Your task to perform on an android device: Open Maps and search for coffee Image 0: 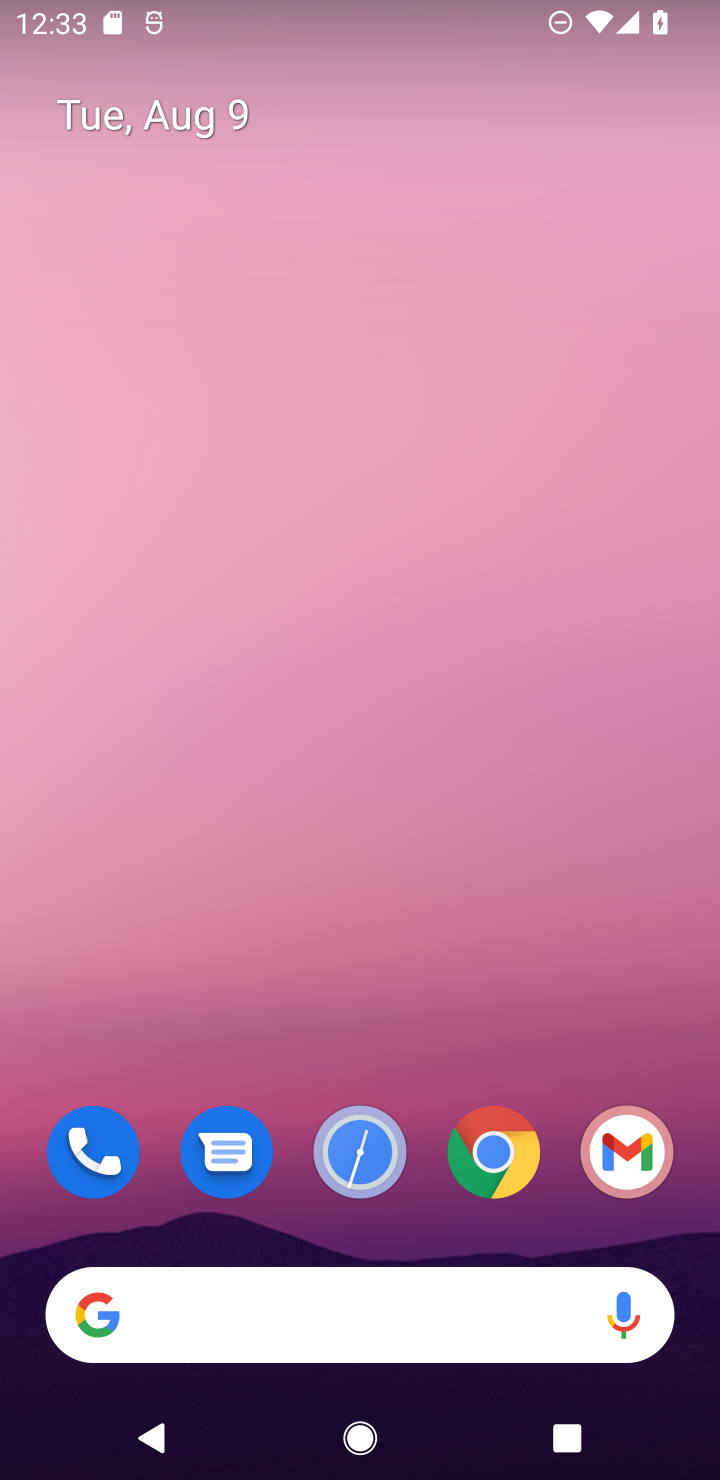
Step 0: drag from (451, 1085) to (432, 303)
Your task to perform on an android device: Open Maps and search for coffee Image 1: 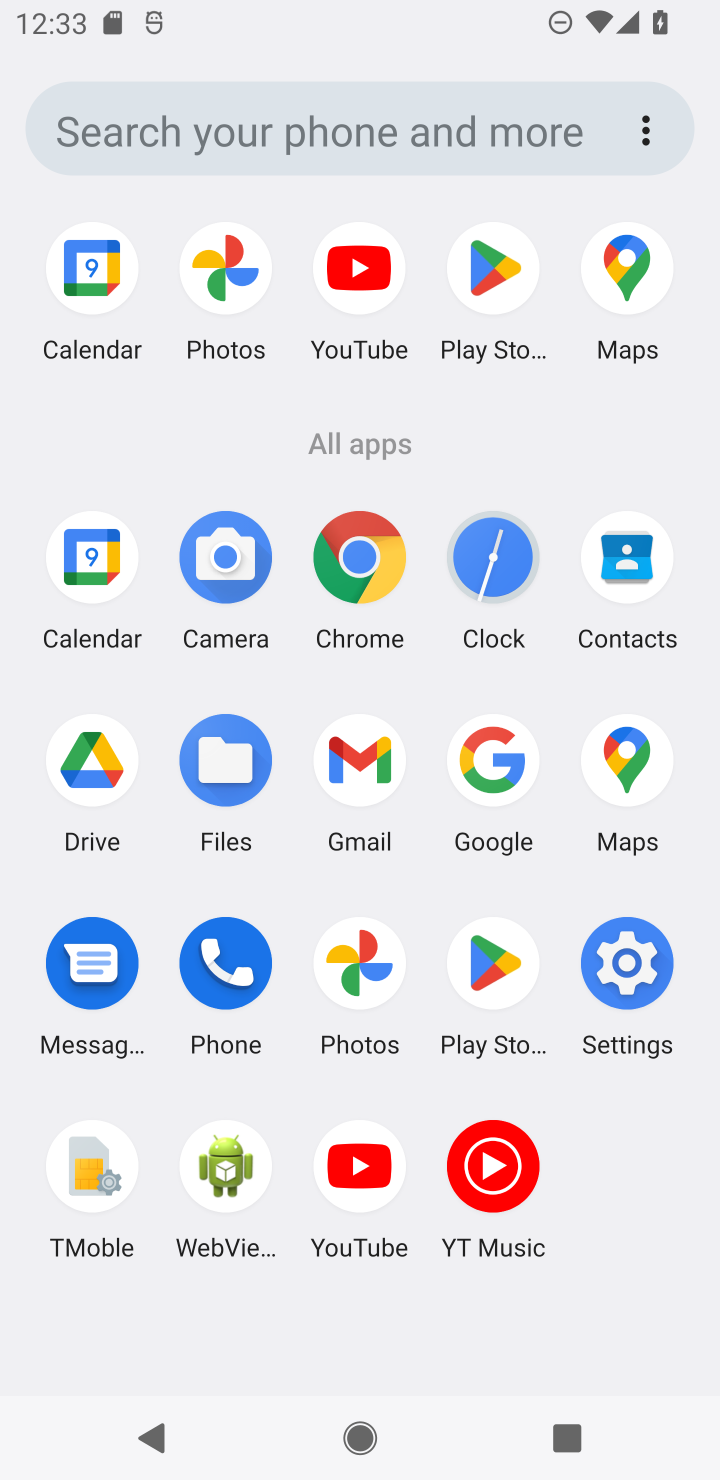
Step 1: click (629, 764)
Your task to perform on an android device: Open Maps and search for coffee Image 2: 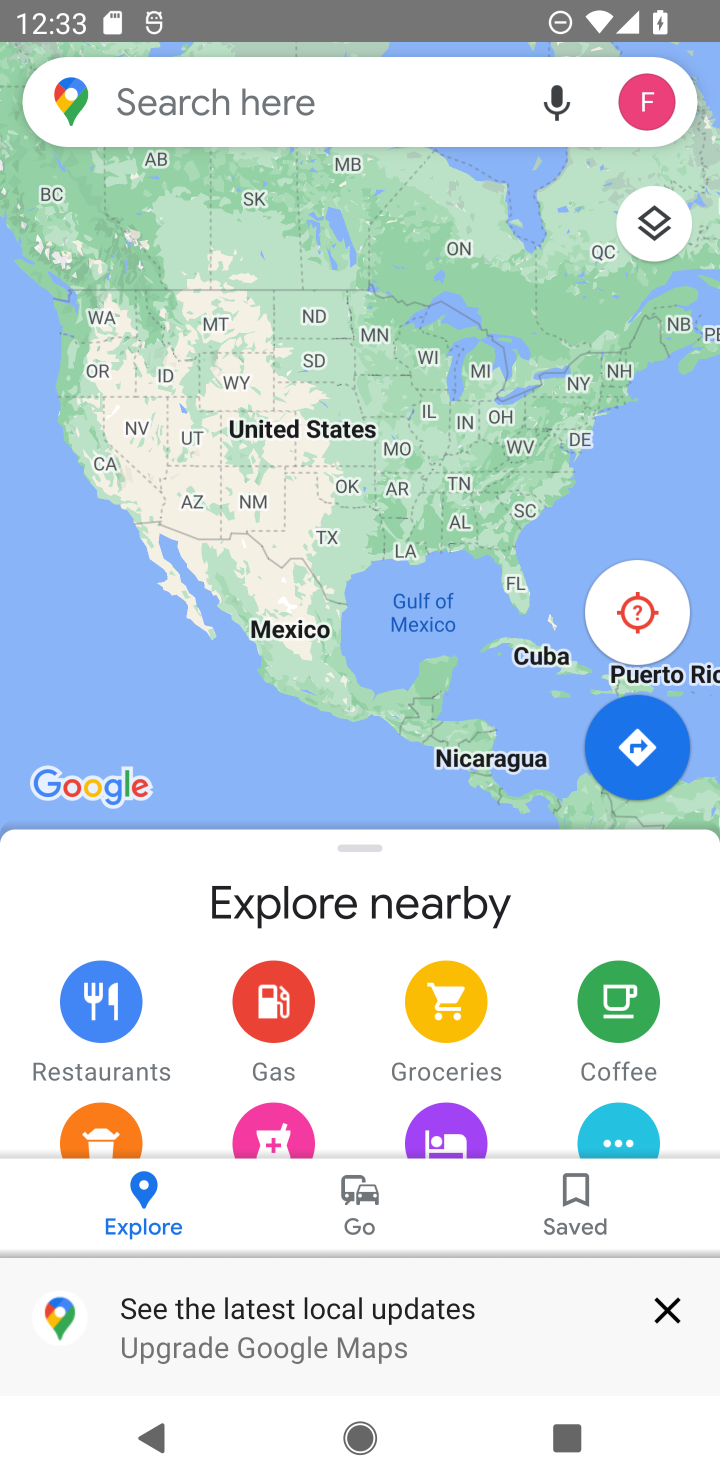
Step 2: click (269, 110)
Your task to perform on an android device: Open Maps and search for coffee Image 3: 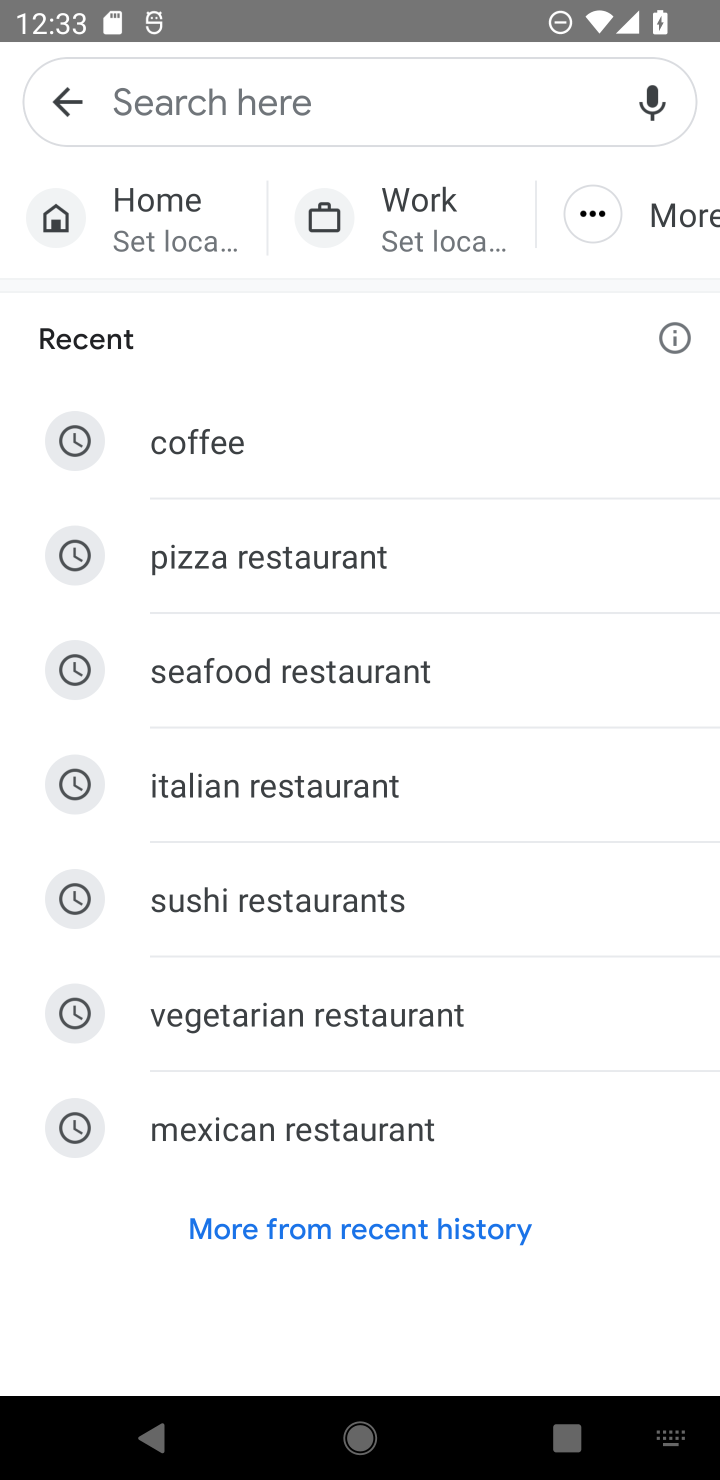
Step 3: click (354, 445)
Your task to perform on an android device: Open Maps and search for coffee Image 4: 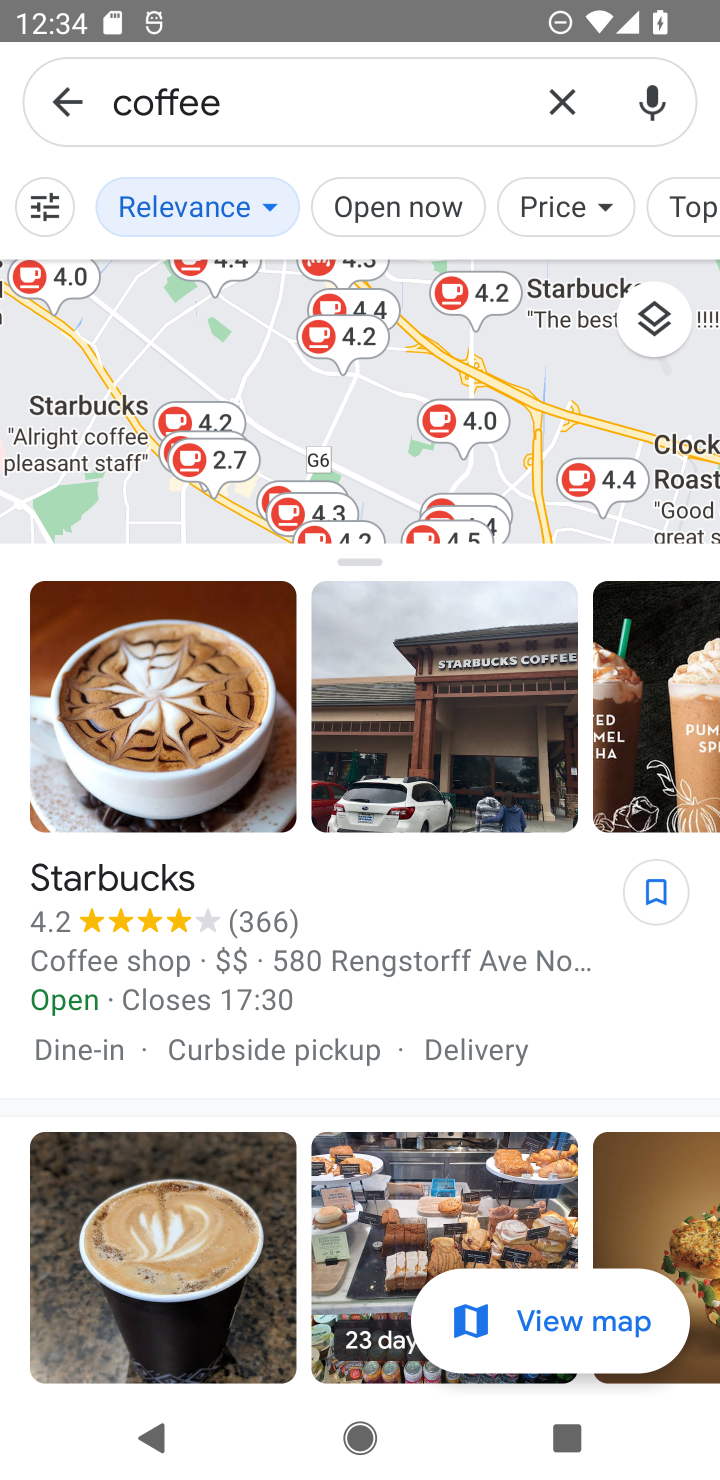
Step 4: task complete